Your task to perform on an android device: What's the weather going to be this weekend? Image 0: 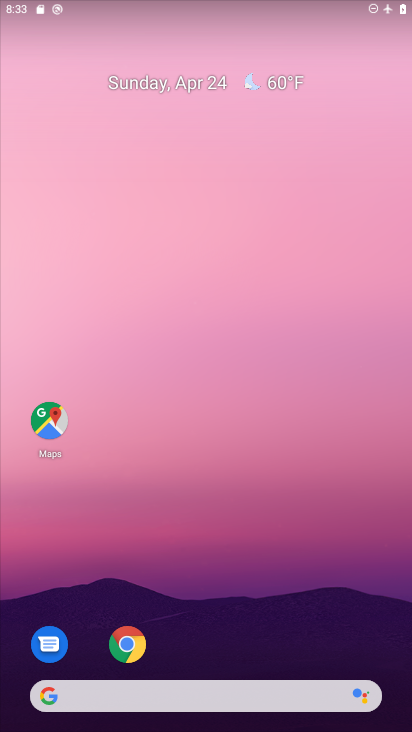
Step 0: drag from (213, 657) to (215, 34)
Your task to perform on an android device: What's the weather going to be this weekend? Image 1: 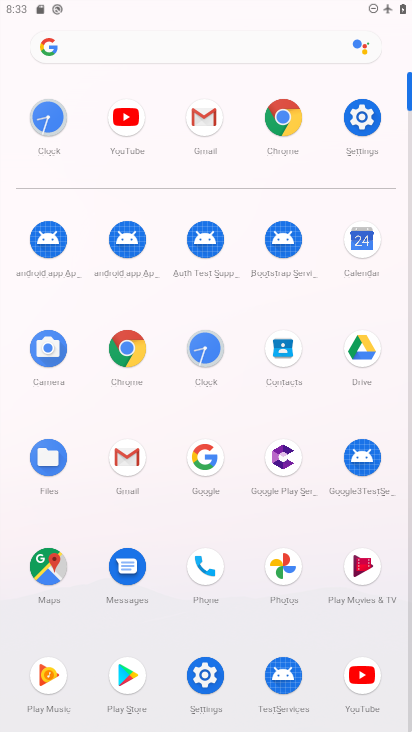
Step 1: press back button
Your task to perform on an android device: What's the weather going to be this weekend? Image 2: 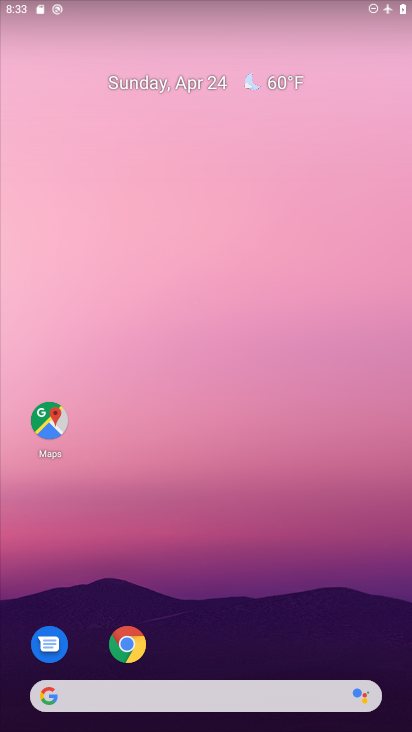
Step 2: click (275, 77)
Your task to perform on an android device: What's the weather going to be this weekend? Image 3: 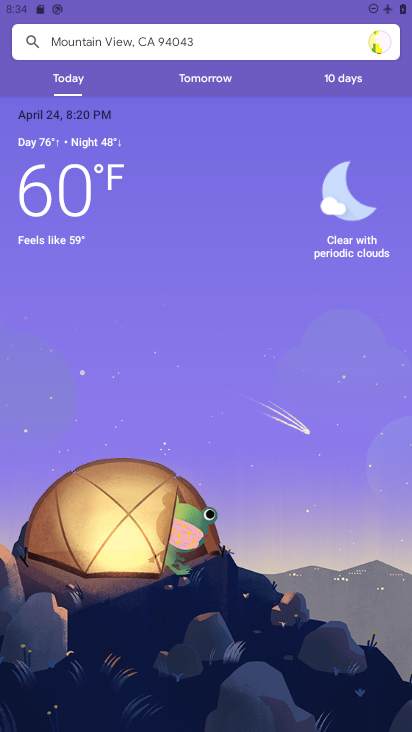
Step 3: task complete